Your task to perform on an android device: turn off javascript in the chrome app Image 0: 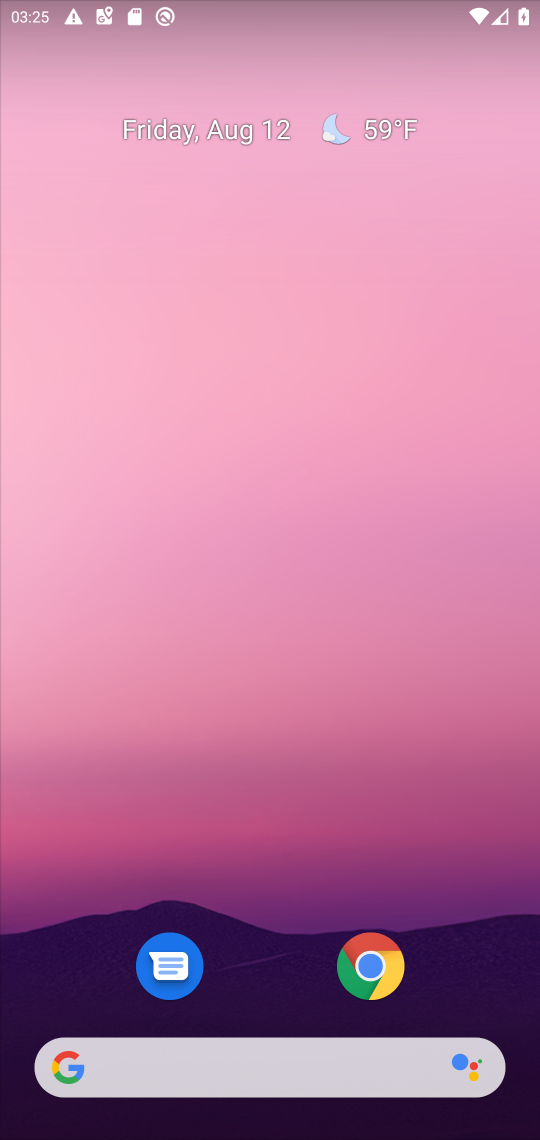
Step 0: drag from (258, 907) to (336, 70)
Your task to perform on an android device: turn off javascript in the chrome app Image 1: 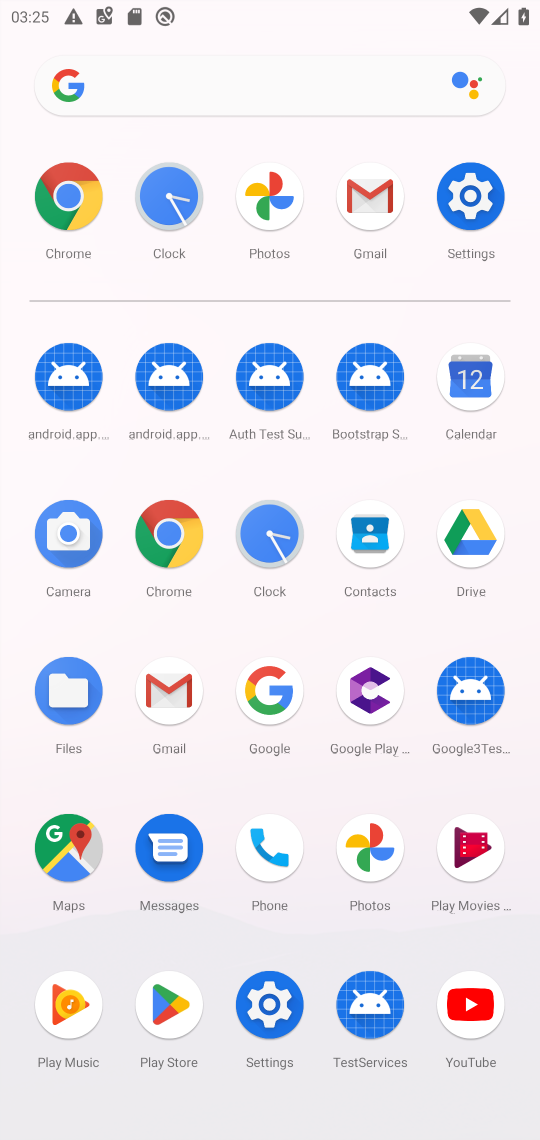
Step 1: click (170, 537)
Your task to perform on an android device: turn off javascript in the chrome app Image 2: 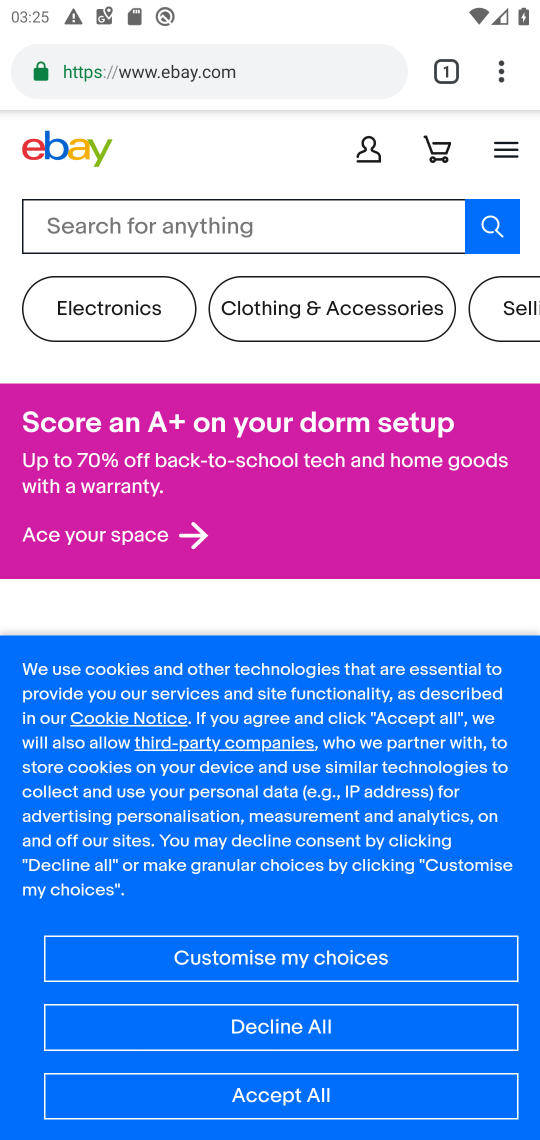
Step 2: drag from (507, 64) to (249, 869)
Your task to perform on an android device: turn off javascript in the chrome app Image 3: 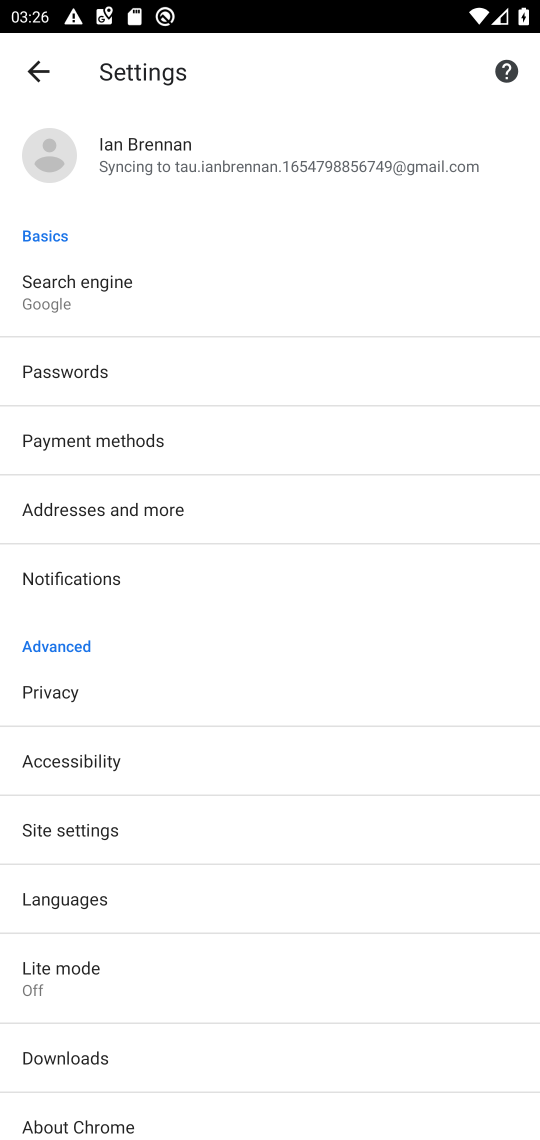
Step 3: click (83, 817)
Your task to perform on an android device: turn off javascript in the chrome app Image 4: 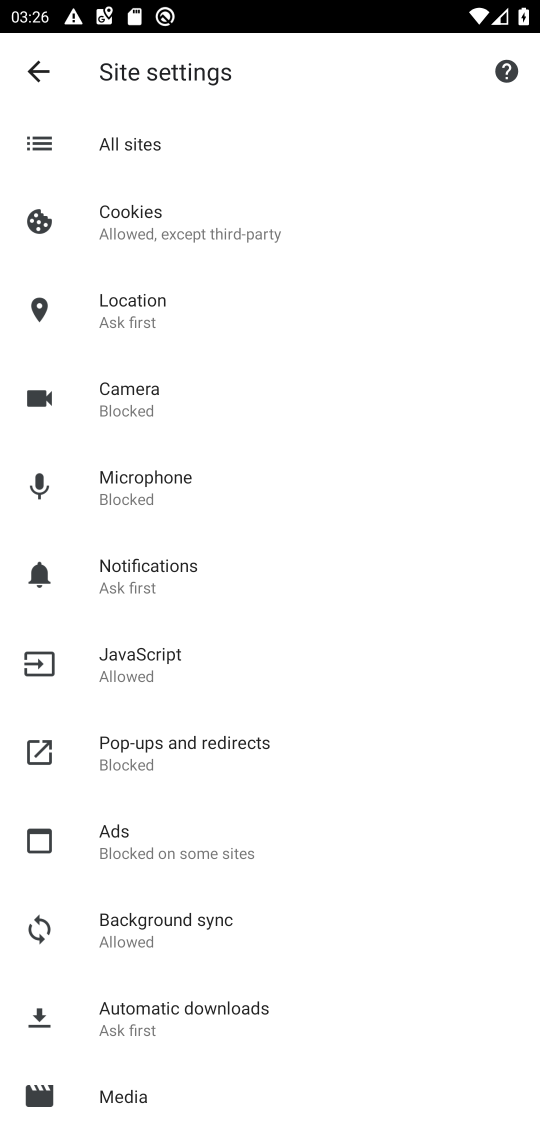
Step 4: click (142, 648)
Your task to perform on an android device: turn off javascript in the chrome app Image 5: 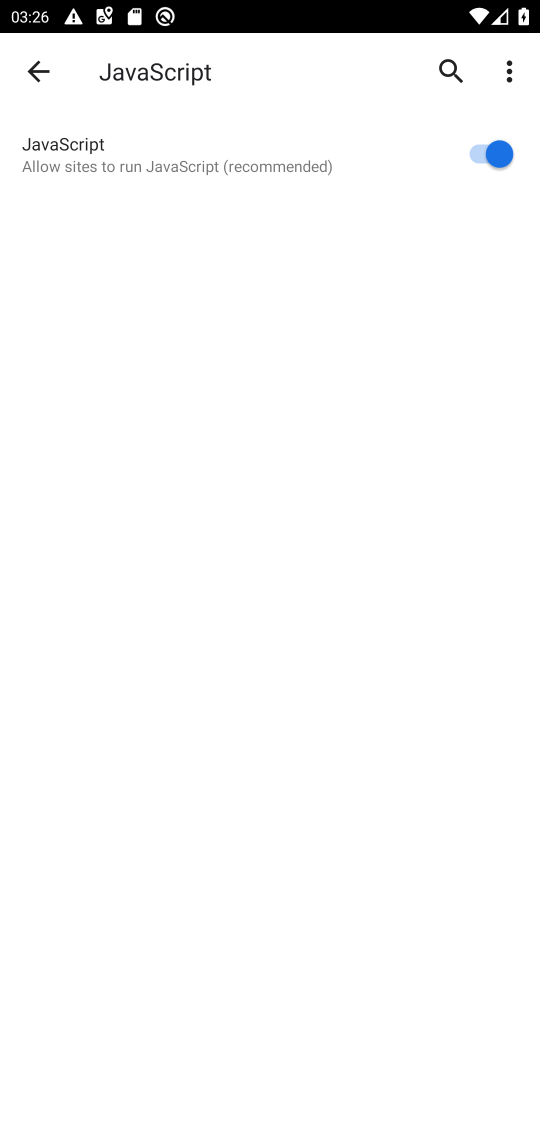
Step 5: click (494, 164)
Your task to perform on an android device: turn off javascript in the chrome app Image 6: 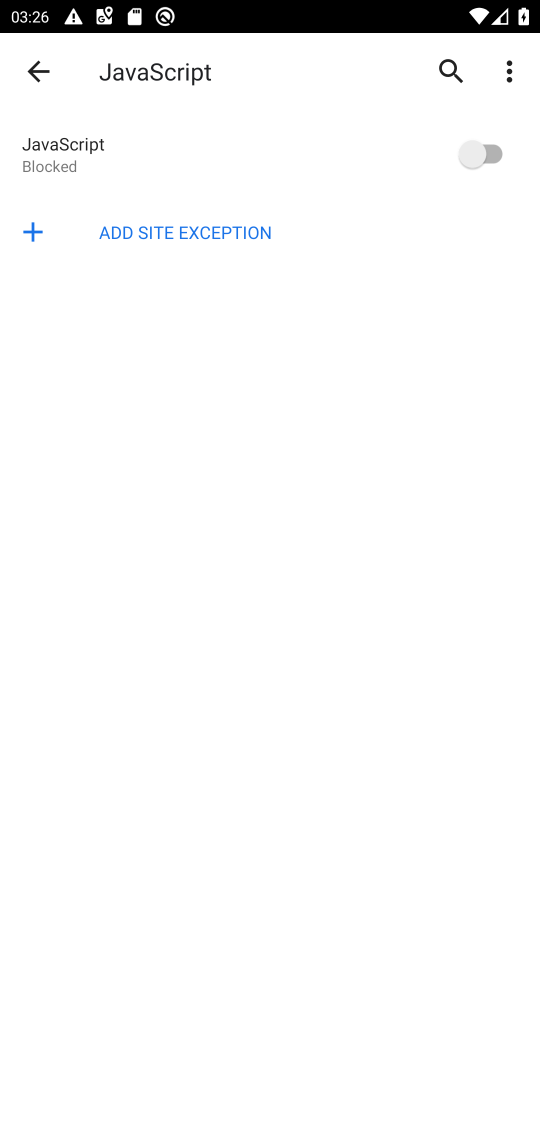
Step 6: task complete